Your task to perform on an android device: Open Chrome and go to settings Image 0: 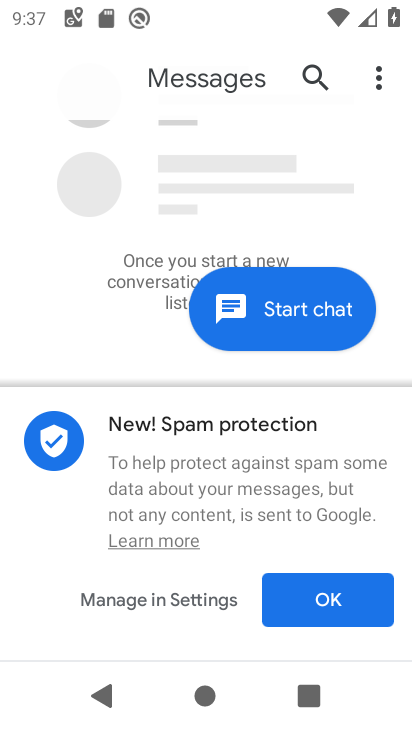
Step 0: press home button
Your task to perform on an android device: Open Chrome and go to settings Image 1: 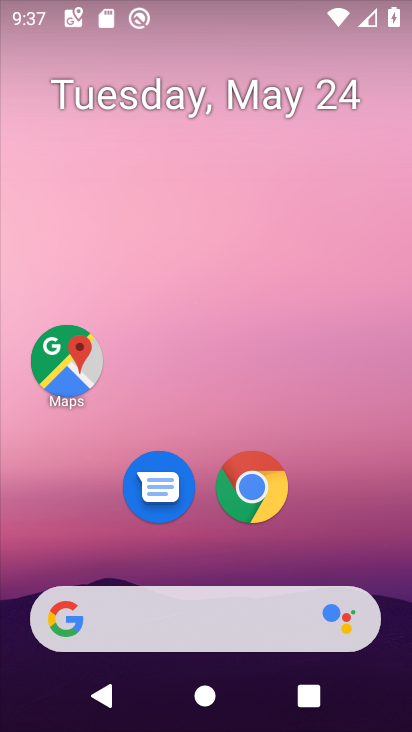
Step 1: click (258, 496)
Your task to perform on an android device: Open Chrome and go to settings Image 2: 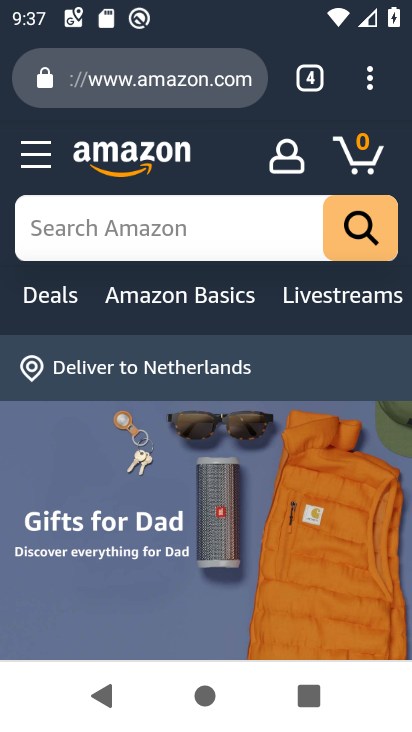
Step 2: task complete